Your task to perform on an android device: Open the phone app and click the voicemail tab. Image 0: 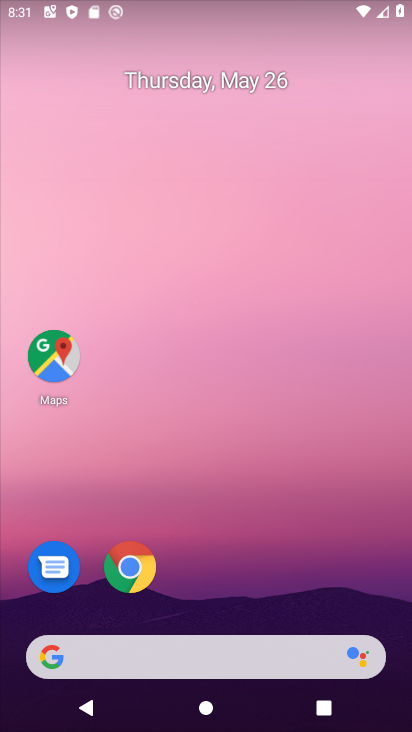
Step 0: press home button
Your task to perform on an android device: Open the phone app and click the voicemail tab. Image 1: 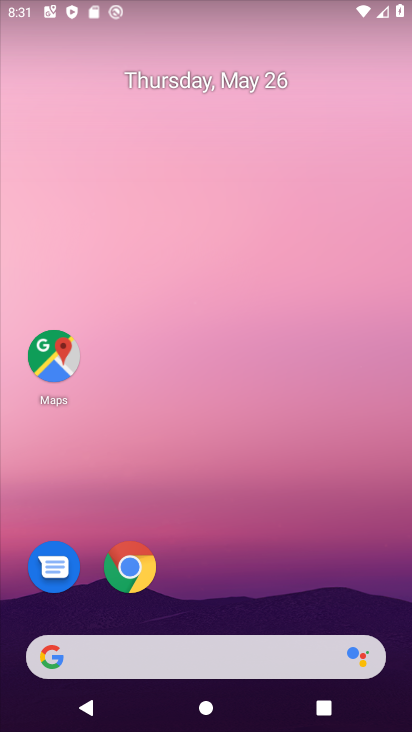
Step 1: drag from (164, 656) to (357, 57)
Your task to perform on an android device: Open the phone app and click the voicemail tab. Image 2: 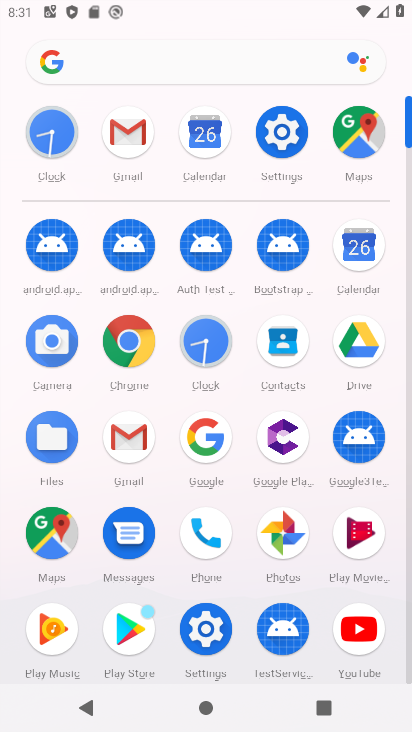
Step 2: click (217, 539)
Your task to perform on an android device: Open the phone app and click the voicemail tab. Image 3: 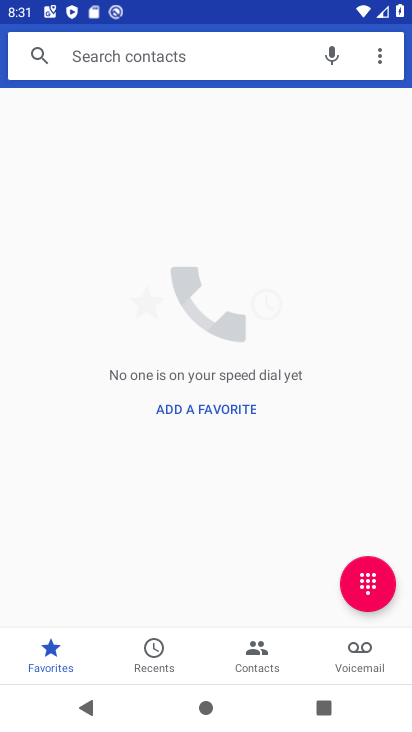
Step 3: click (346, 644)
Your task to perform on an android device: Open the phone app and click the voicemail tab. Image 4: 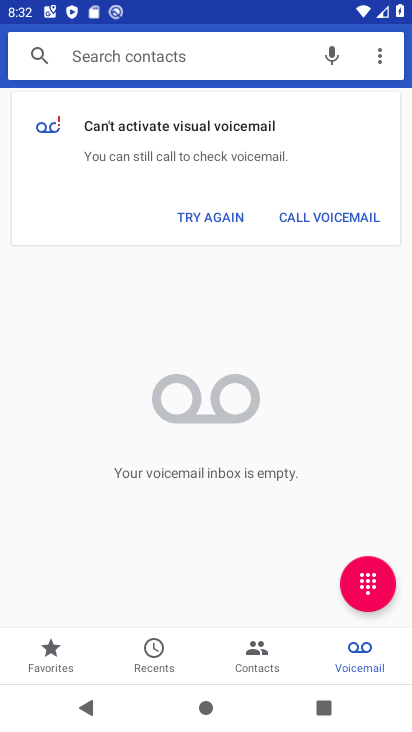
Step 4: task complete